Your task to perform on an android device: toggle pop-ups in chrome Image 0: 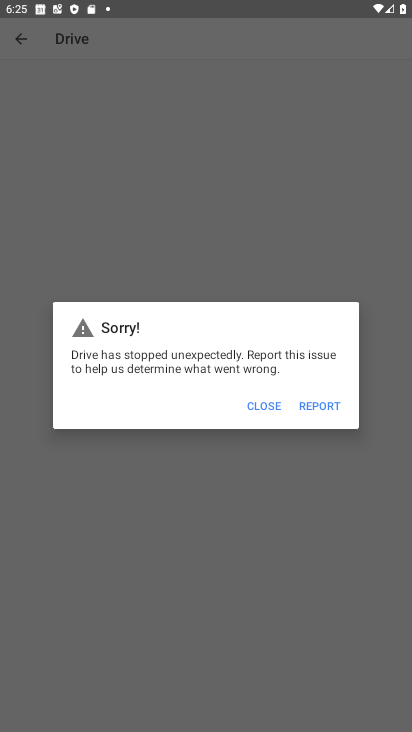
Step 0: press home button
Your task to perform on an android device: toggle pop-ups in chrome Image 1: 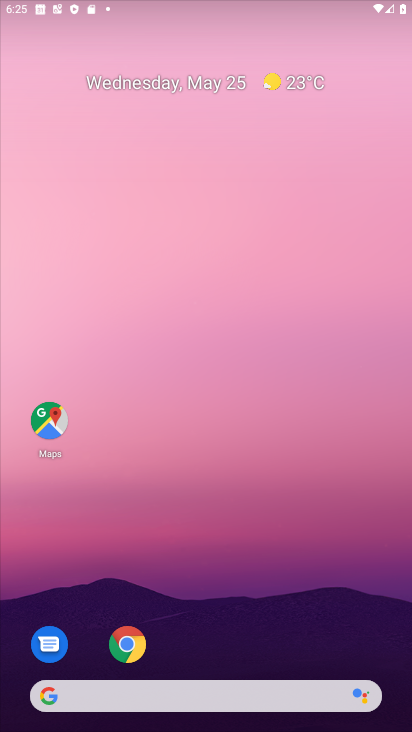
Step 1: drag from (370, 636) to (239, 37)
Your task to perform on an android device: toggle pop-ups in chrome Image 2: 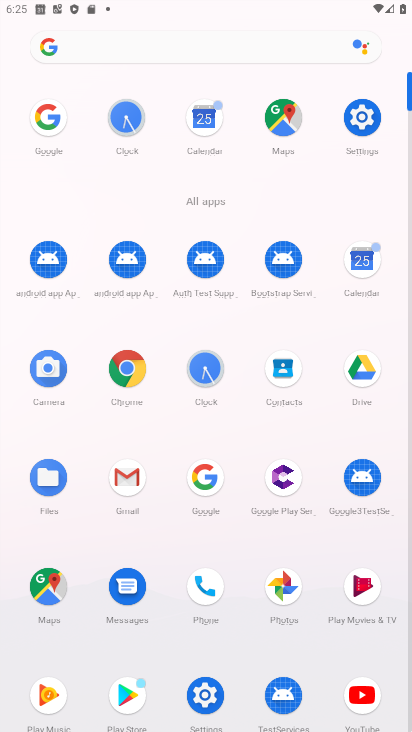
Step 2: click (122, 366)
Your task to perform on an android device: toggle pop-ups in chrome Image 3: 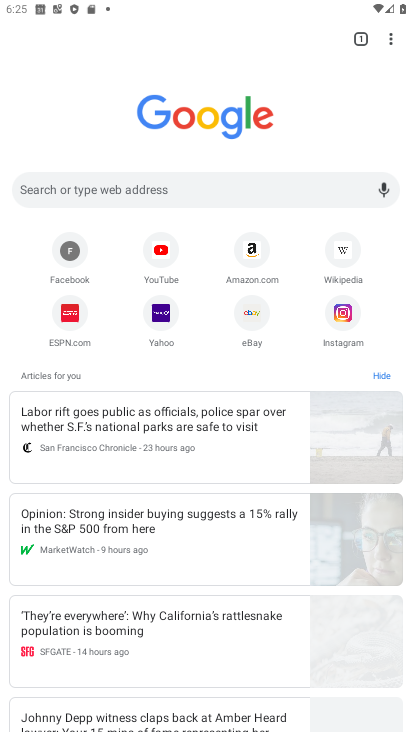
Step 3: click (392, 31)
Your task to perform on an android device: toggle pop-ups in chrome Image 4: 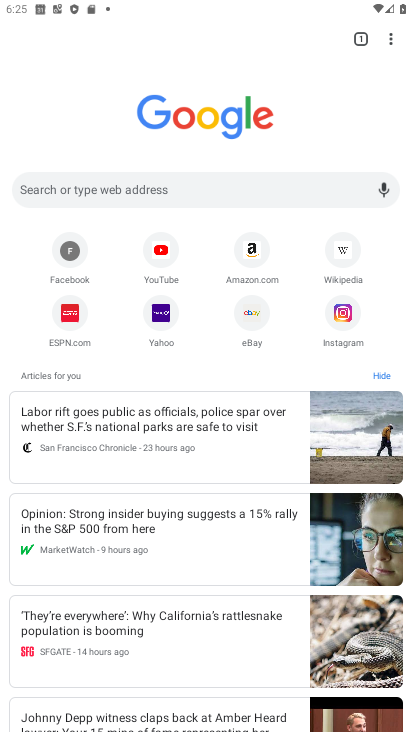
Step 4: click (392, 31)
Your task to perform on an android device: toggle pop-ups in chrome Image 5: 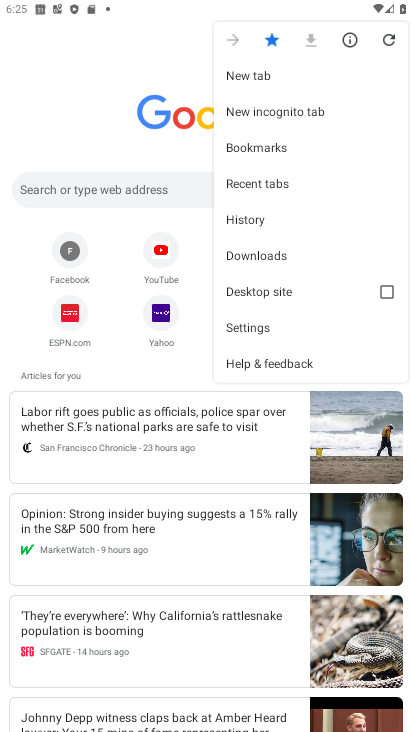
Step 5: click (251, 321)
Your task to perform on an android device: toggle pop-ups in chrome Image 6: 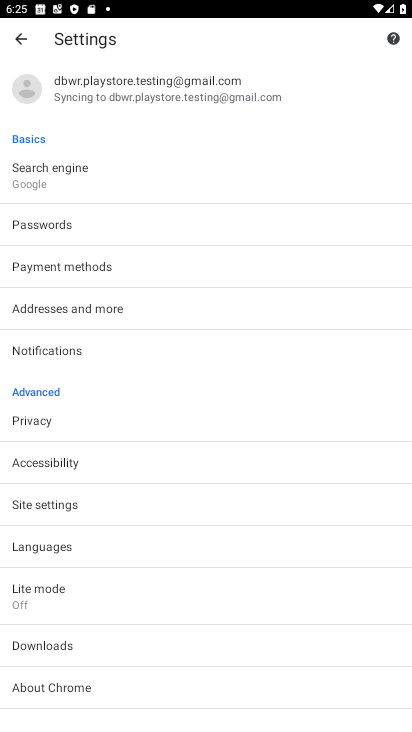
Step 6: click (81, 502)
Your task to perform on an android device: toggle pop-ups in chrome Image 7: 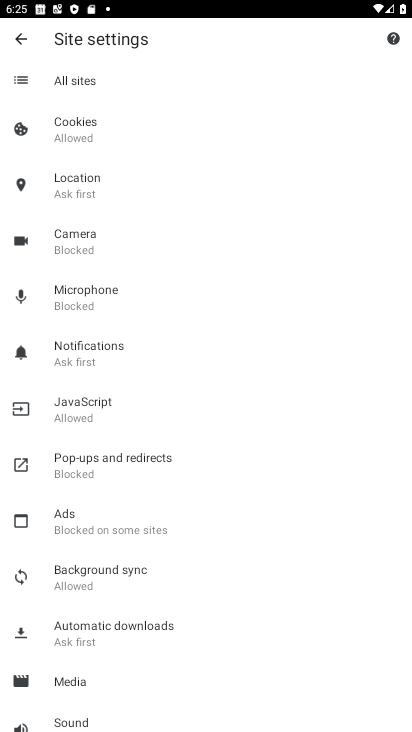
Step 7: click (93, 455)
Your task to perform on an android device: toggle pop-ups in chrome Image 8: 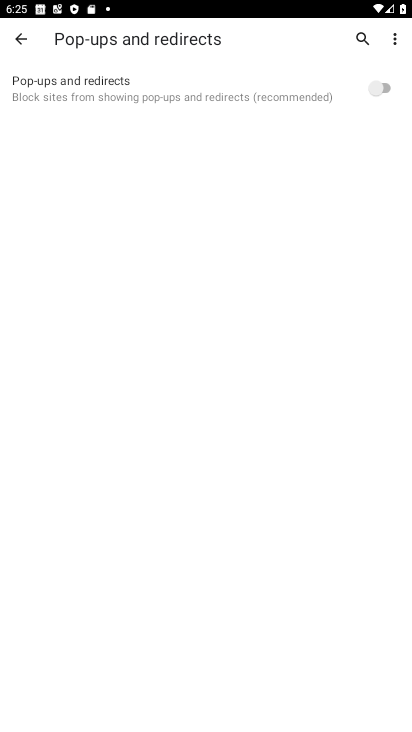
Step 8: click (331, 90)
Your task to perform on an android device: toggle pop-ups in chrome Image 9: 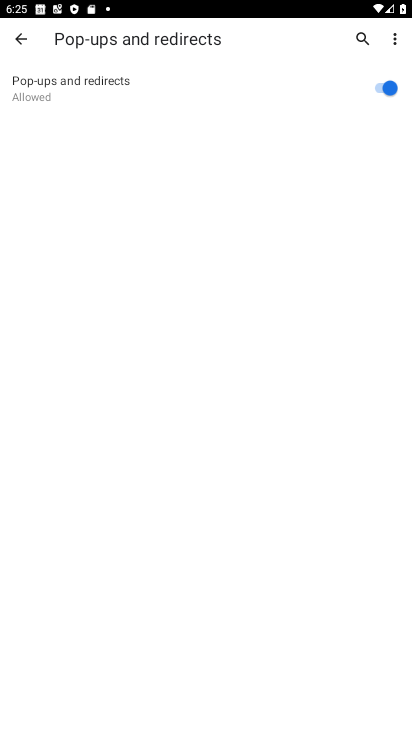
Step 9: task complete